Your task to perform on an android device: make emails show in primary in the gmail app Image 0: 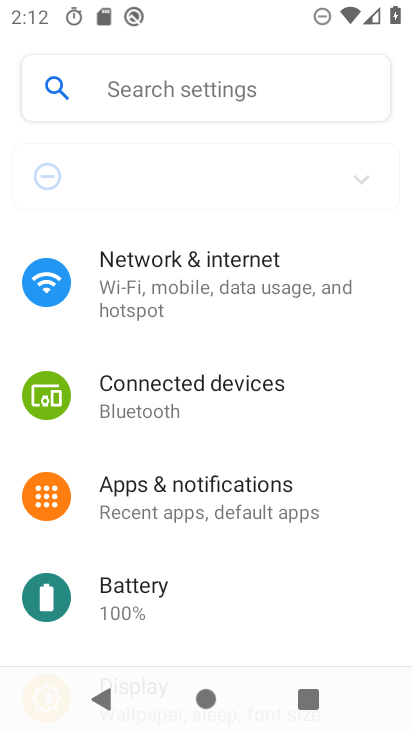
Step 0: drag from (299, 655) to (290, 309)
Your task to perform on an android device: make emails show in primary in the gmail app Image 1: 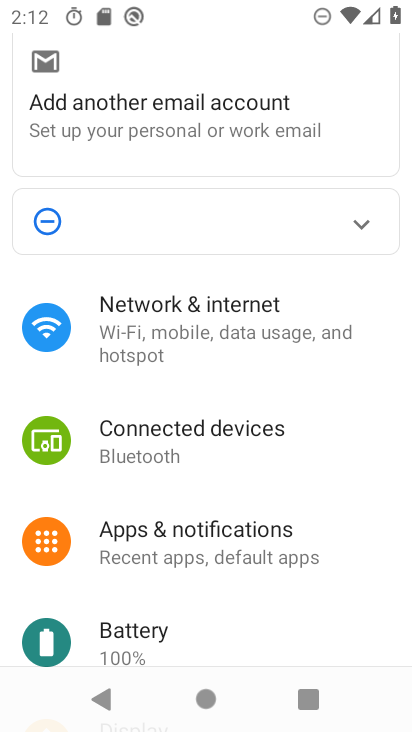
Step 1: press home button
Your task to perform on an android device: make emails show in primary in the gmail app Image 2: 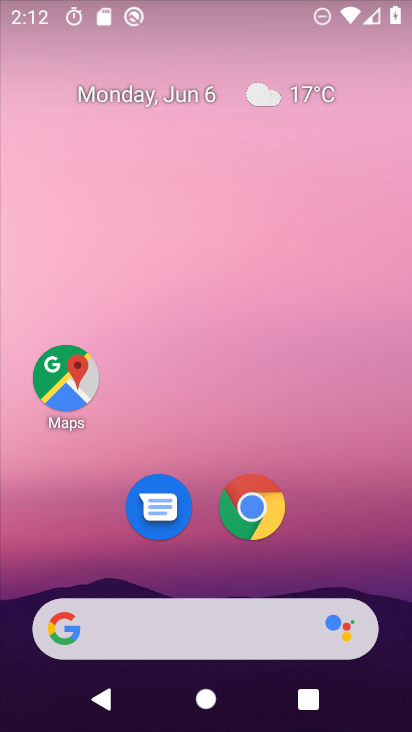
Step 2: drag from (256, 501) to (257, 224)
Your task to perform on an android device: make emails show in primary in the gmail app Image 3: 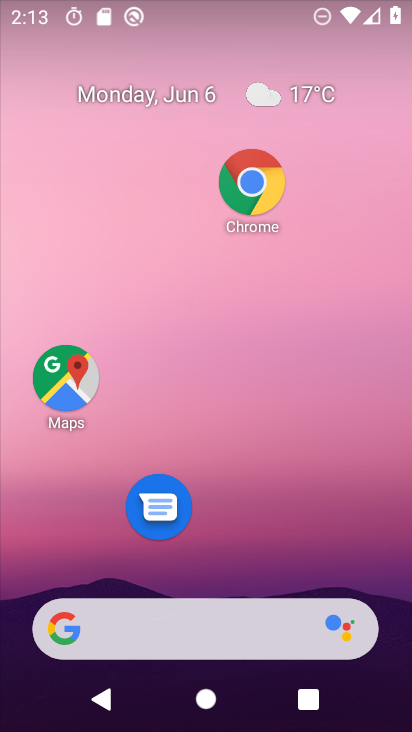
Step 3: drag from (227, 680) to (220, 258)
Your task to perform on an android device: make emails show in primary in the gmail app Image 4: 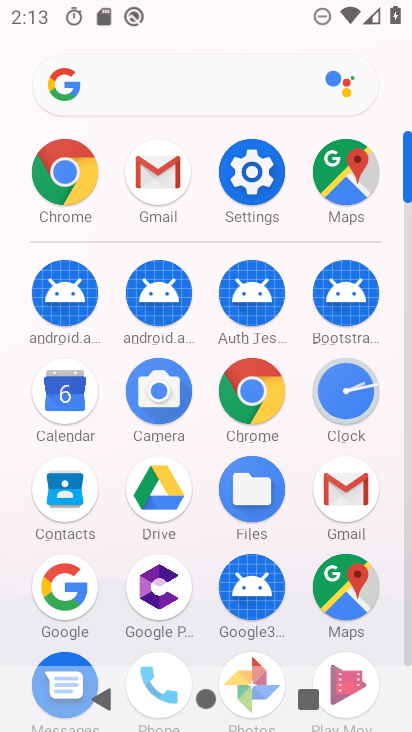
Step 4: click (348, 495)
Your task to perform on an android device: make emails show in primary in the gmail app Image 5: 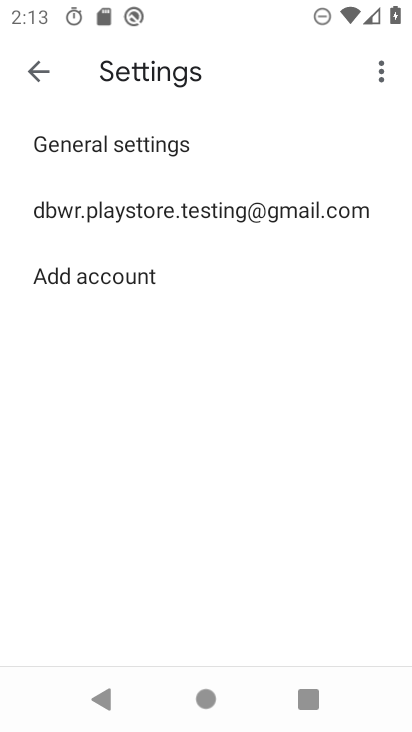
Step 5: click (142, 221)
Your task to perform on an android device: make emails show in primary in the gmail app Image 6: 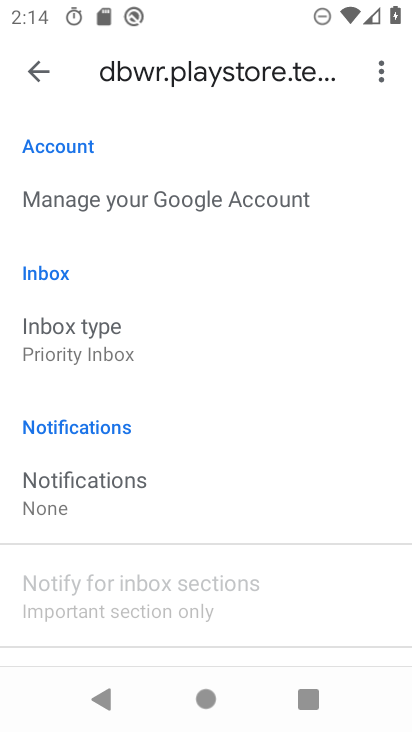
Step 6: task complete